Your task to perform on an android device: open device folders in google photos Image 0: 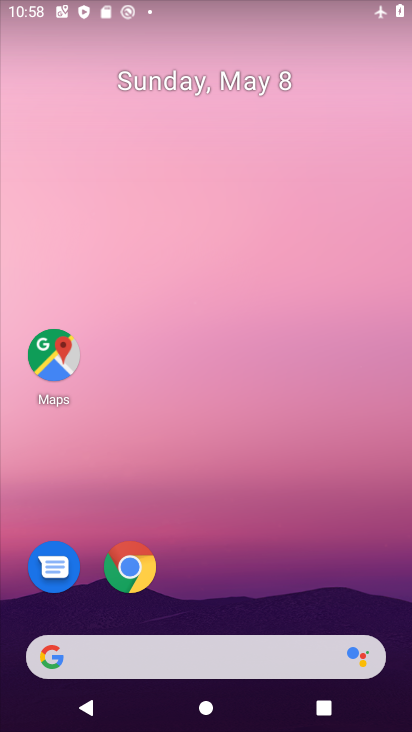
Step 0: press home button
Your task to perform on an android device: open device folders in google photos Image 1: 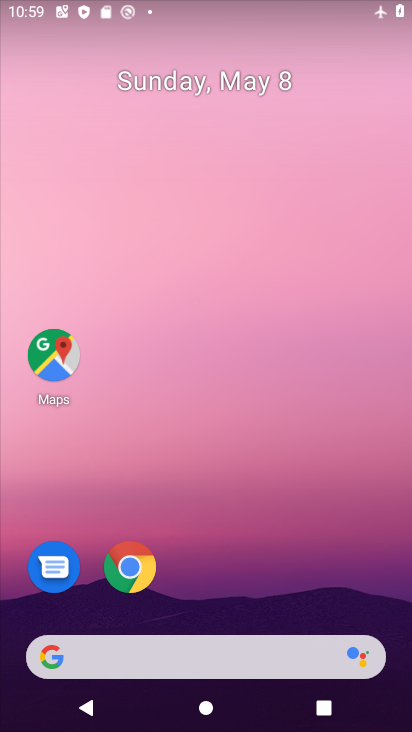
Step 1: drag from (218, 603) to (274, 156)
Your task to perform on an android device: open device folders in google photos Image 2: 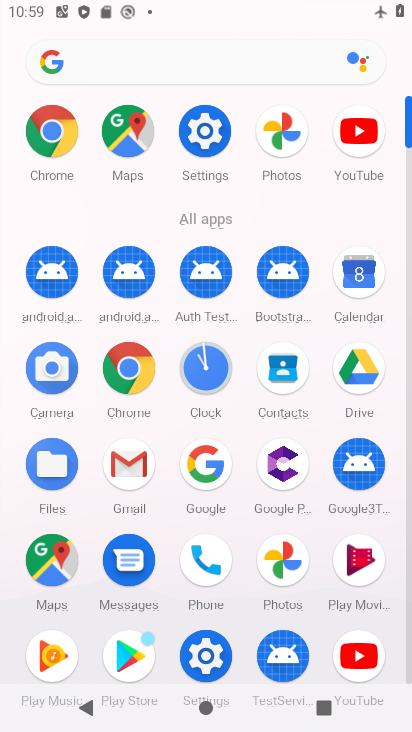
Step 2: click (280, 554)
Your task to perform on an android device: open device folders in google photos Image 3: 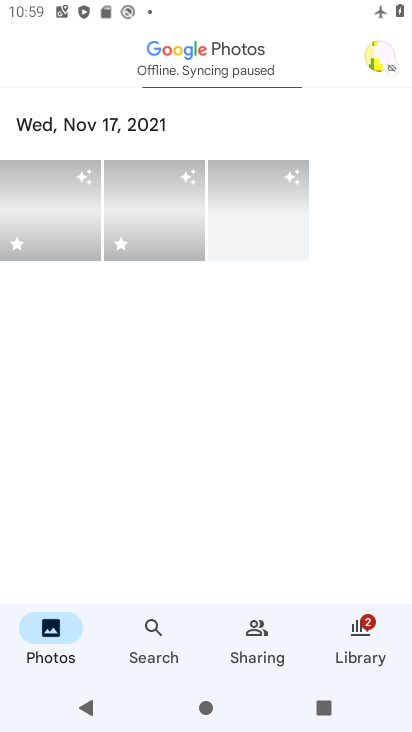
Step 3: click (151, 627)
Your task to perform on an android device: open device folders in google photos Image 4: 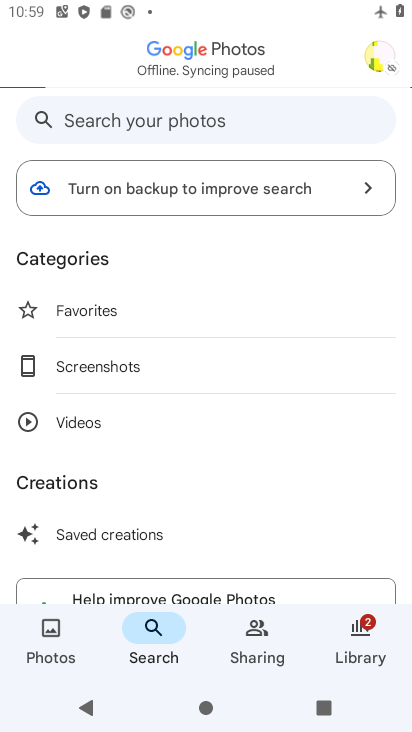
Step 4: click (117, 115)
Your task to perform on an android device: open device folders in google photos Image 5: 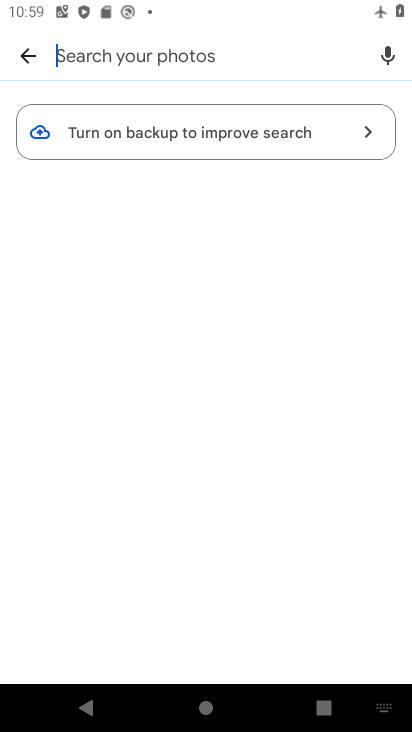
Step 5: type "device"
Your task to perform on an android device: open device folders in google photos Image 6: 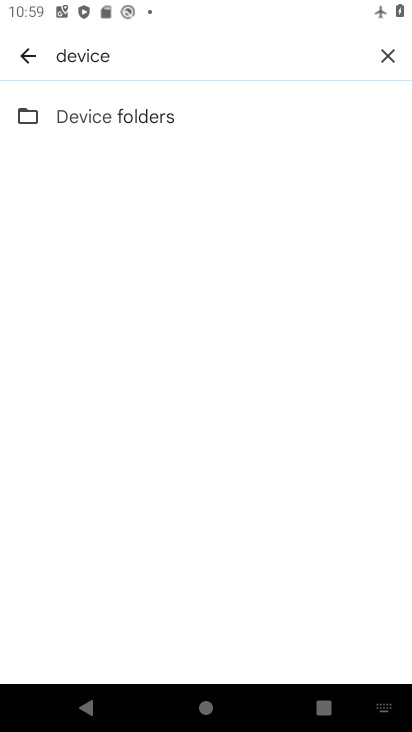
Step 6: click (118, 122)
Your task to perform on an android device: open device folders in google photos Image 7: 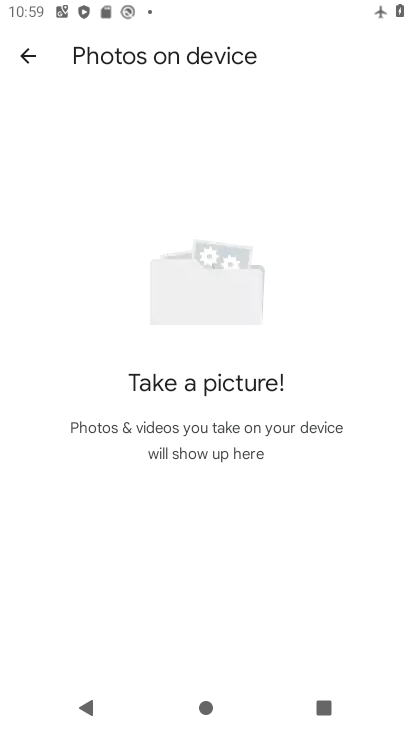
Step 7: task complete